Your task to perform on an android device: Open Wikipedia Image 0: 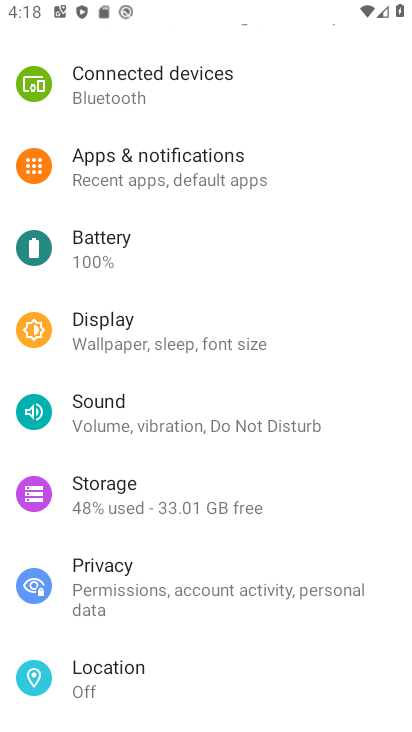
Step 0: press home button
Your task to perform on an android device: Open Wikipedia Image 1: 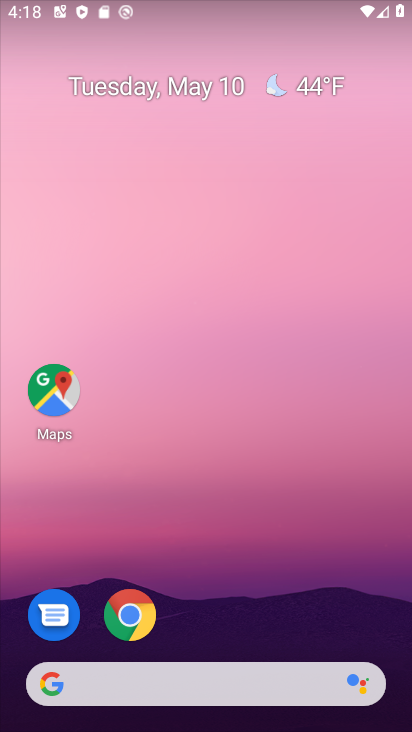
Step 1: click (130, 616)
Your task to perform on an android device: Open Wikipedia Image 2: 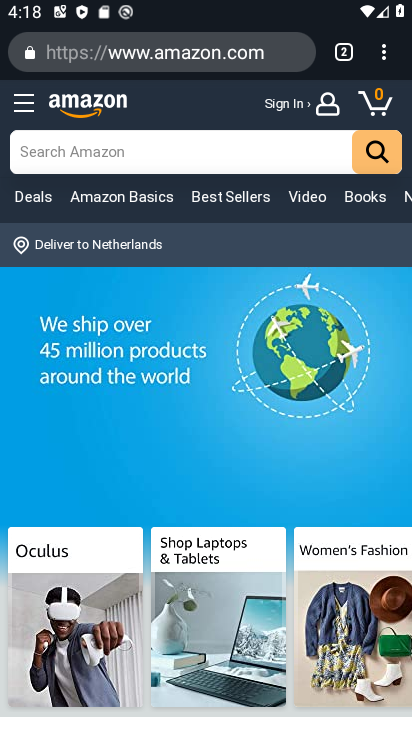
Step 2: click (384, 58)
Your task to perform on an android device: Open Wikipedia Image 3: 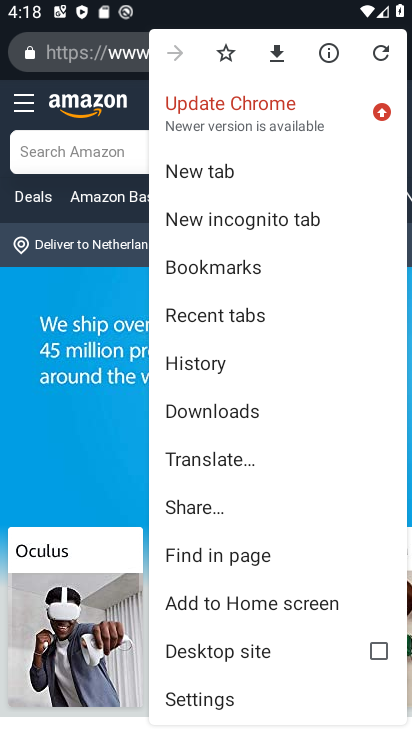
Step 3: click (206, 173)
Your task to perform on an android device: Open Wikipedia Image 4: 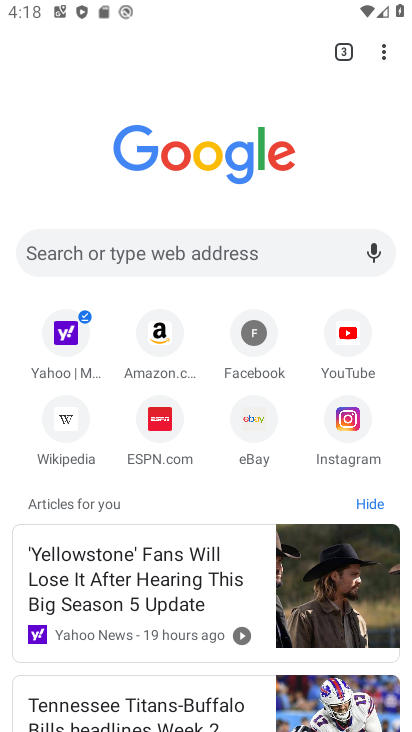
Step 4: click (59, 420)
Your task to perform on an android device: Open Wikipedia Image 5: 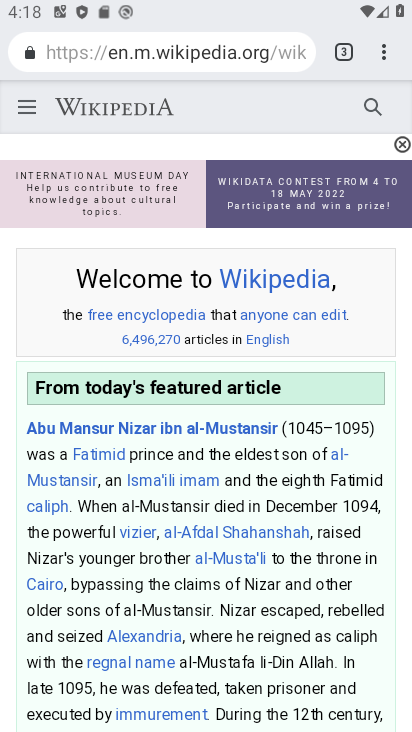
Step 5: task complete